Your task to perform on an android device: turn off javascript in the chrome app Image 0: 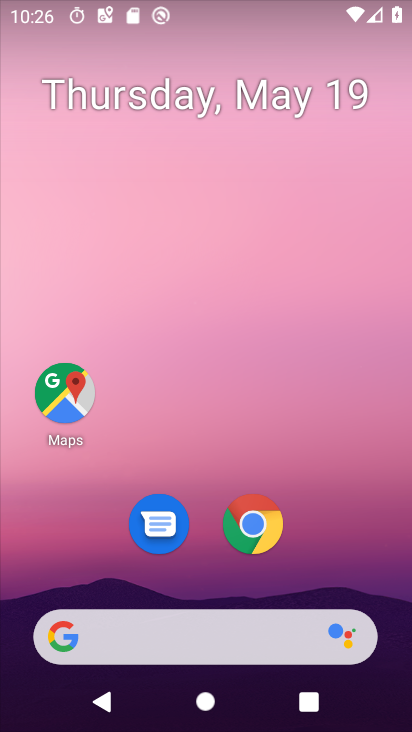
Step 0: click (257, 522)
Your task to perform on an android device: turn off javascript in the chrome app Image 1: 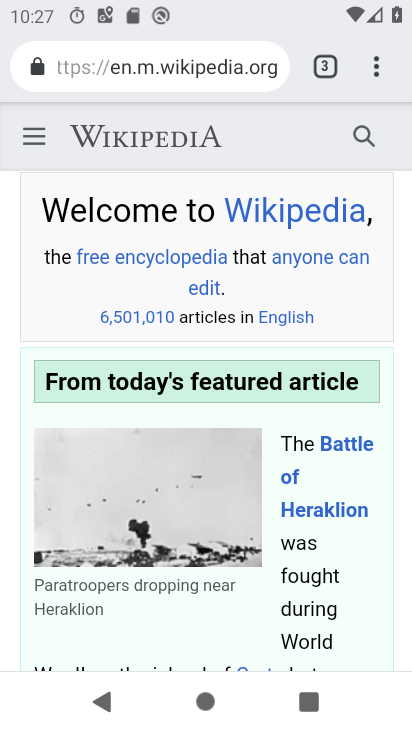
Step 1: click (378, 59)
Your task to perform on an android device: turn off javascript in the chrome app Image 2: 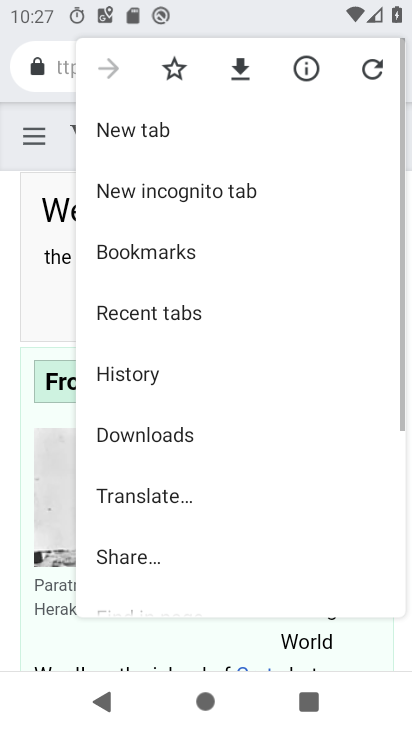
Step 2: click (377, 62)
Your task to perform on an android device: turn off javascript in the chrome app Image 3: 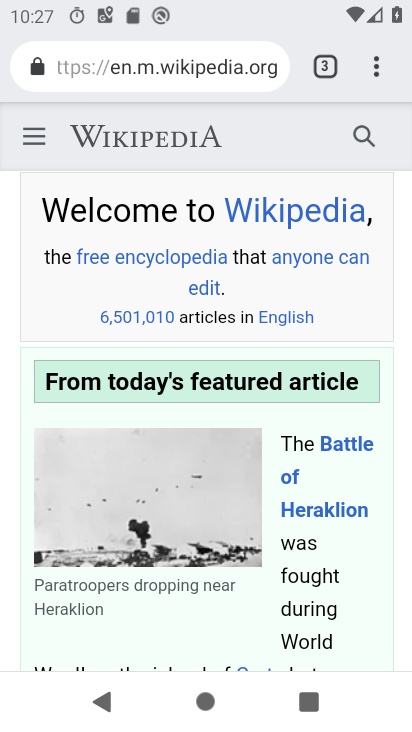
Step 3: click (377, 62)
Your task to perform on an android device: turn off javascript in the chrome app Image 4: 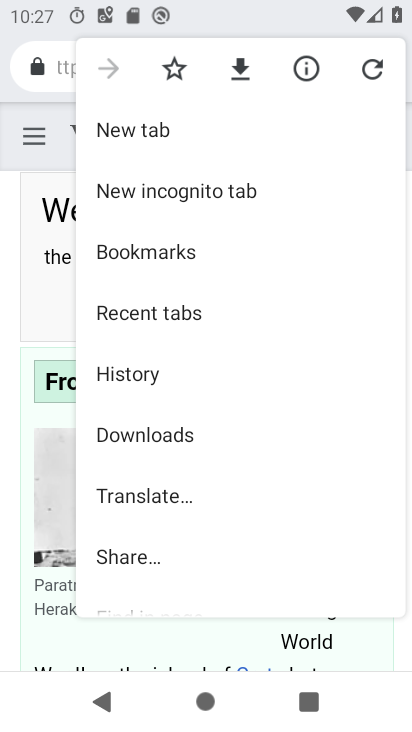
Step 4: drag from (274, 360) to (286, 144)
Your task to perform on an android device: turn off javascript in the chrome app Image 5: 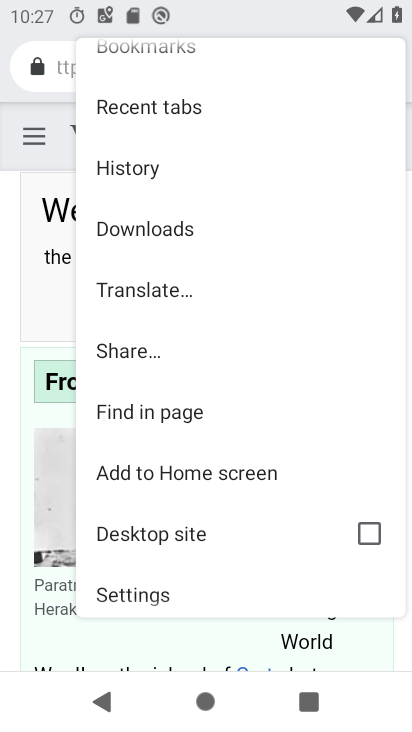
Step 5: click (186, 591)
Your task to perform on an android device: turn off javascript in the chrome app Image 6: 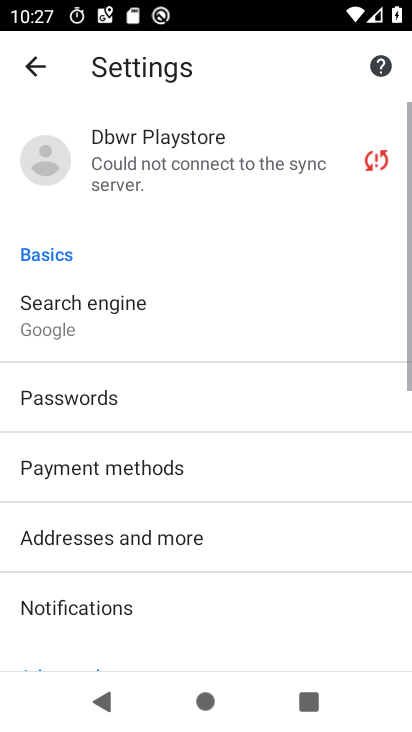
Step 6: drag from (217, 530) to (247, 164)
Your task to perform on an android device: turn off javascript in the chrome app Image 7: 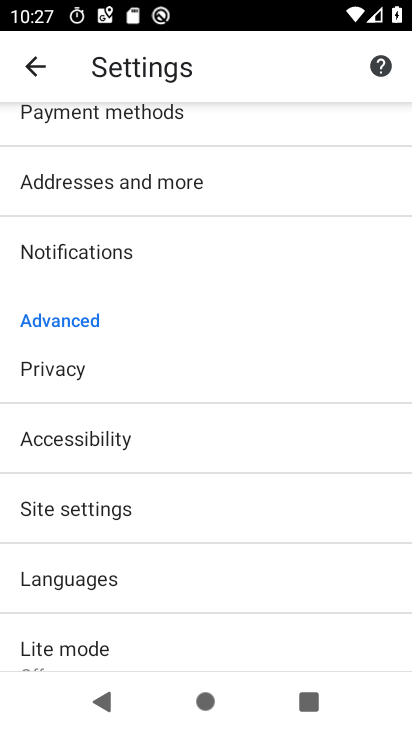
Step 7: click (149, 502)
Your task to perform on an android device: turn off javascript in the chrome app Image 8: 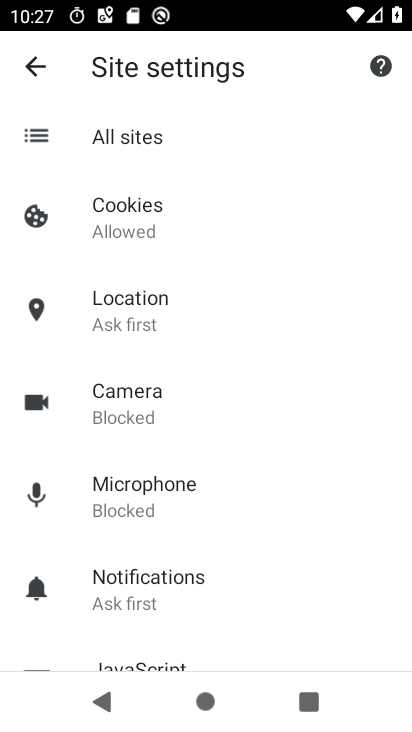
Step 8: drag from (218, 498) to (256, 222)
Your task to perform on an android device: turn off javascript in the chrome app Image 9: 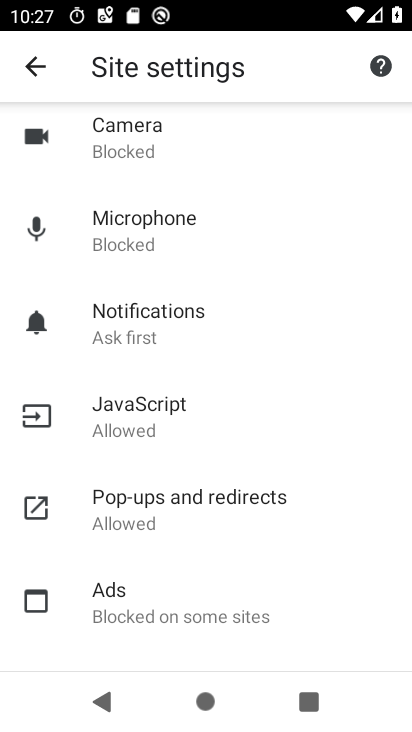
Step 9: click (193, 414)
Your task to perform on an android device: turn off javascript in the chrome app Image 10: 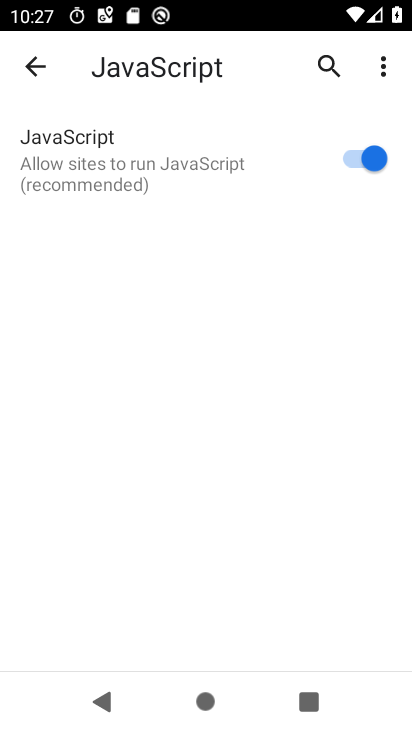
Step 10: click (358, 158)
Your task to perform on an android device: turn off javascript in the chrome app Image 11: 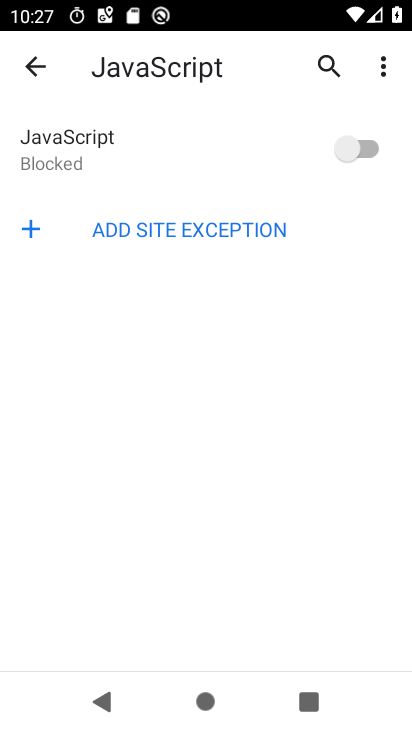
Step 11: task complete